Your task to perform on an android device: toggle airplane mode Image 0: 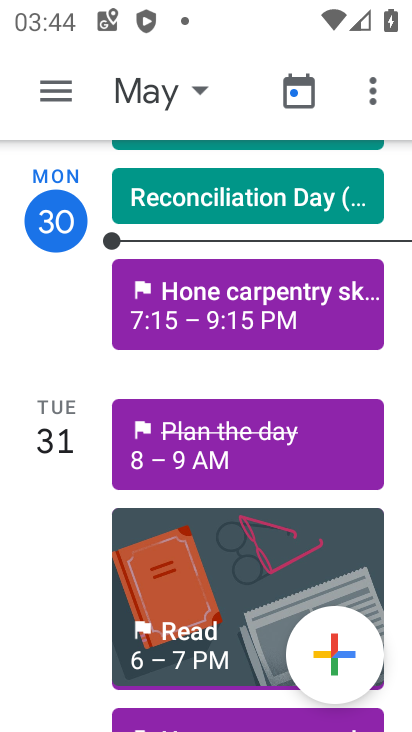
Step 0: press home button
Your task to perform on an android device: toggle airplane mode Image 1: 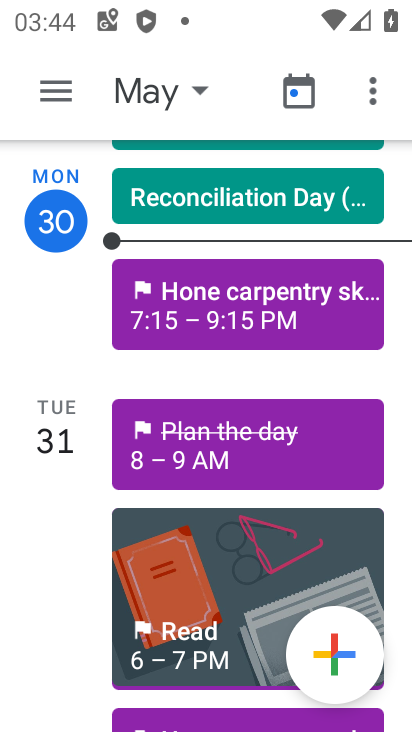
Step 1: press home button
Your task to perform on an android device: toggle airplane mode Image 2: 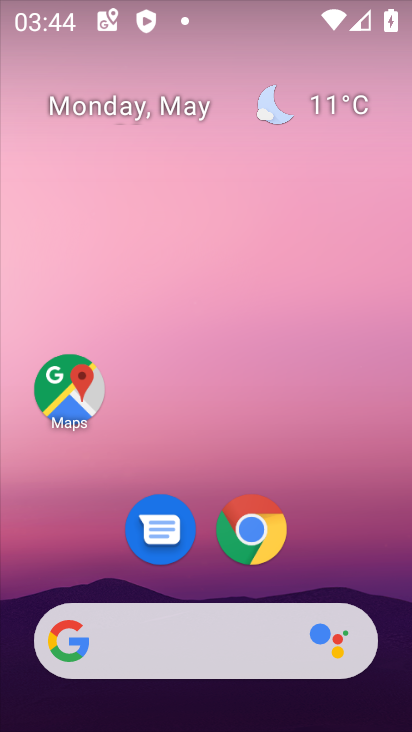
Step 2: drag from (334, 543) to (285, 165)
Your task to perform on an android device: toggle airplane mode Image 3: 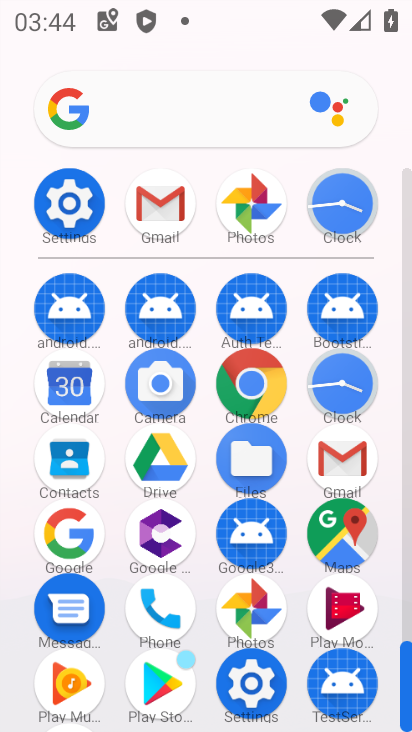
Step 3: click (65, 191)
Your task to perform on an android device: toggle airplane mode Image 4: 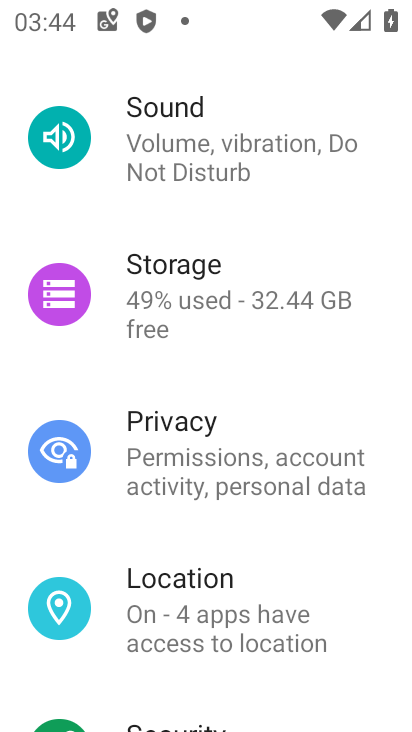
Step 4: drag from (266, 143) to (262, 554)
Your task to perform on an android device: toggle airplane mode Image 5: 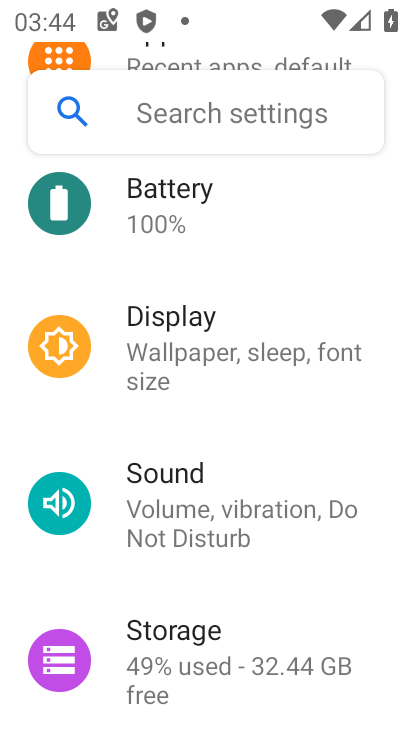
Step 5: drag from (228, 228) to (236, 468)
Your task to perform on an android device: toggle airplane mode Image 6: 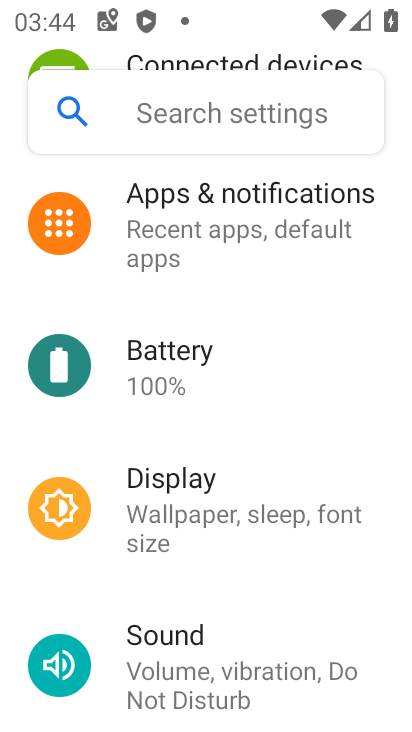
Step 6: drag from (191, 277) to (272, 594)
Your task to perform on an android device: toggle airplane mode Image 7: 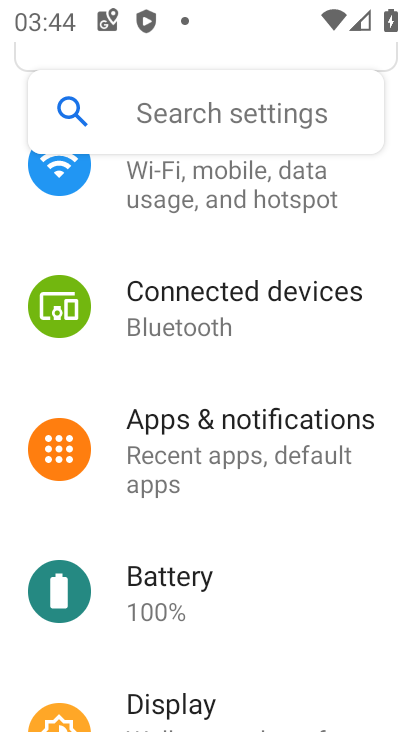
Step 7: drag from (180, 217) to (251, 638)
Your task to perform on an android device: toggle airplane mode Image 8: 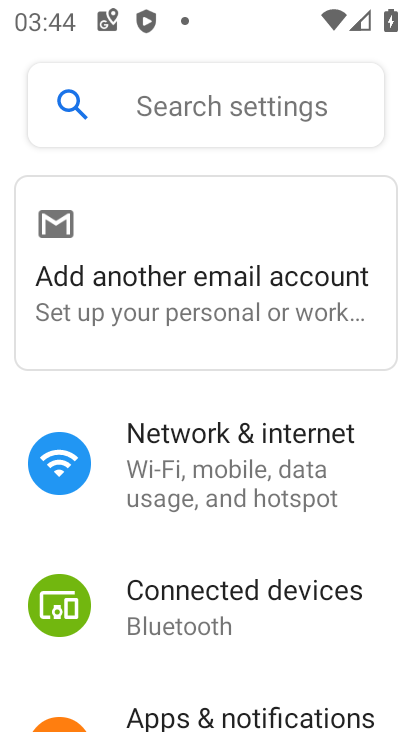
Step 8: drag from (260, 563) to (253, 290)
Your task to perform on an android device: toggle airplane mode Image 9: 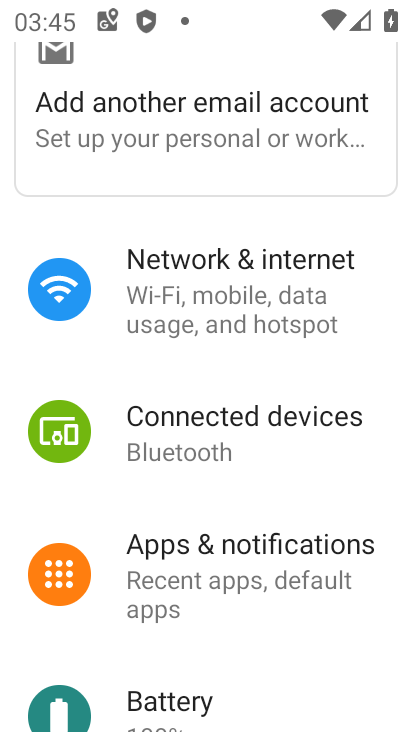
Step 9: click (264, 300)
Your task to perform on an android device: toggle airplane mode Image 10: 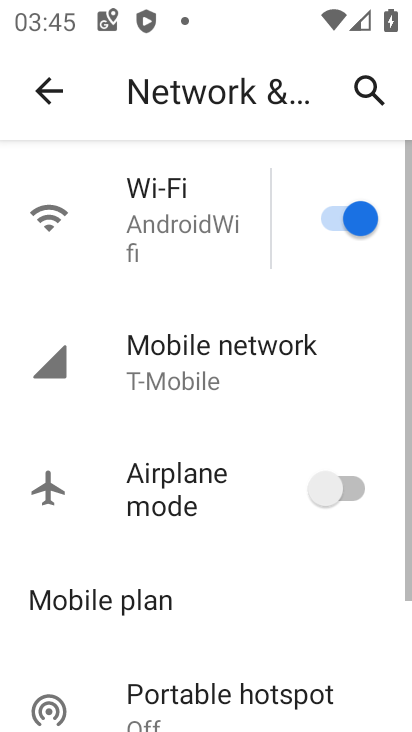
Step 10: click (340, 498)
Your task to perform on an android device: toggle airplane mode Image 11: 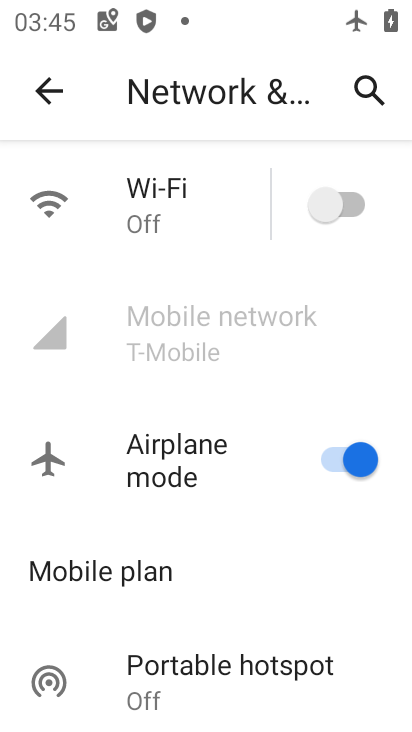
Step 11: task complete